Your task to perform on an android device: Go to accessibility settings Image 0: 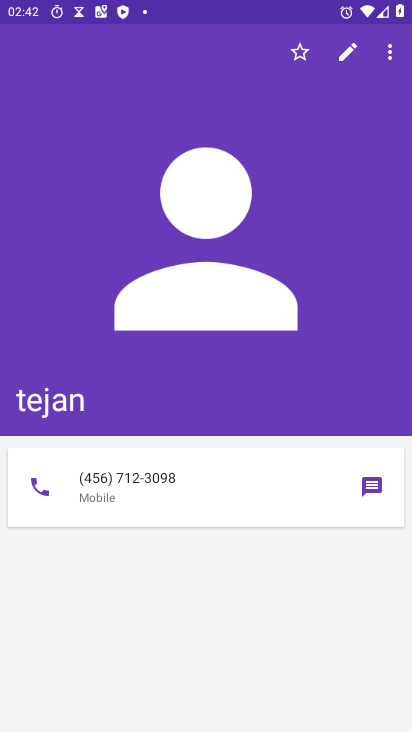
Step 0: press home button
Your task to perform on an android device: Go to accessibility settings Image 1: 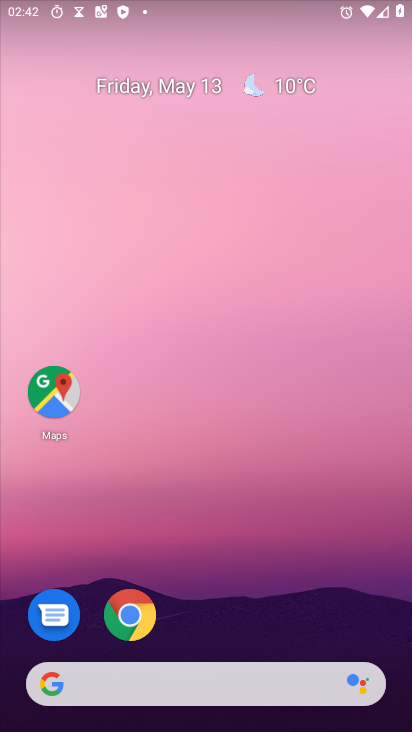
Step 1: drag from (153, 378) to (83, 139)
Your task to perform on an android device: Go to accessibility settings Image 2: 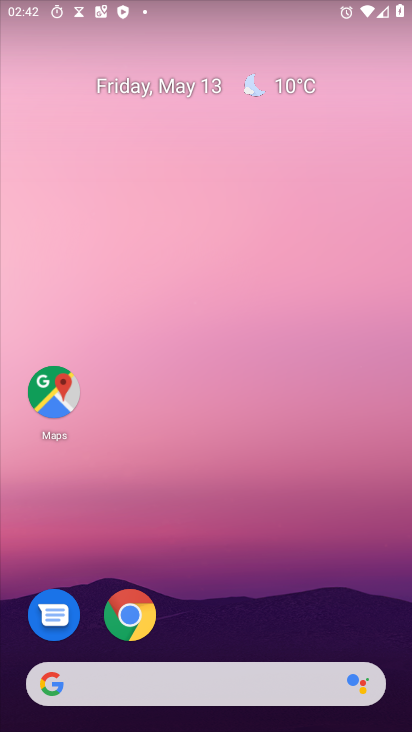
Step 2: drag from (188, 636) to (24, 73)
Your task to perform on an android device: Go to accessibility settings Image 3: 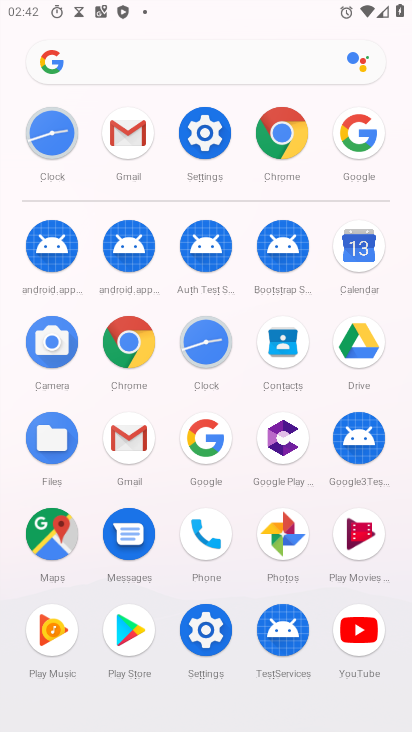
Step 3: click (209, 133)
Your task to perform on an android device: Go to accessibility settings Image 4: 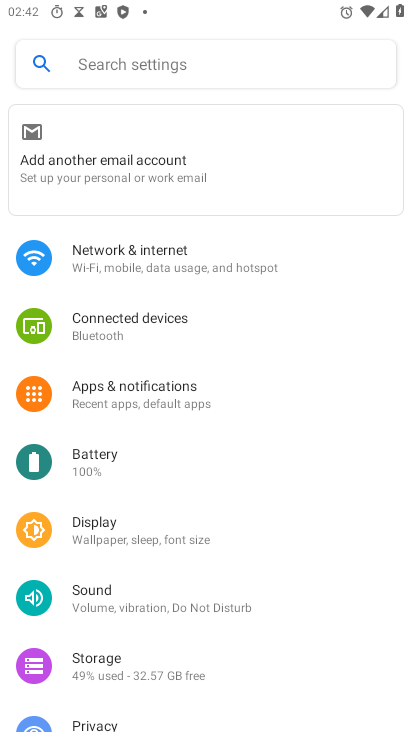
Step 4: drag from (250, 691) to (249, 174)
Your task to perform on an android device: Go to accessibility settings Image 5: 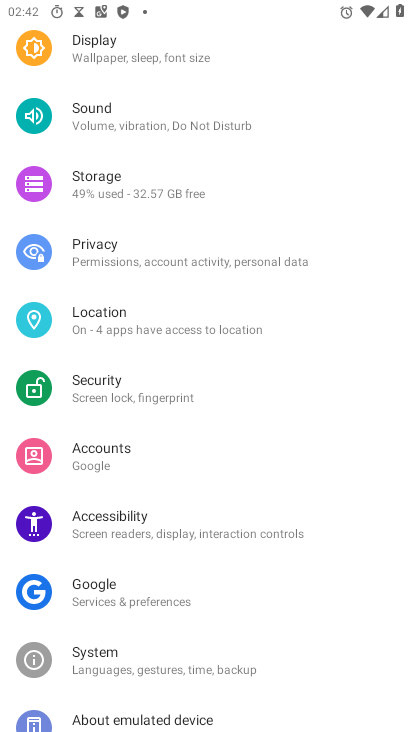
Step 5: click (141, 521)
Your task to perform on an android device: Go to accessibility settings Image 6: 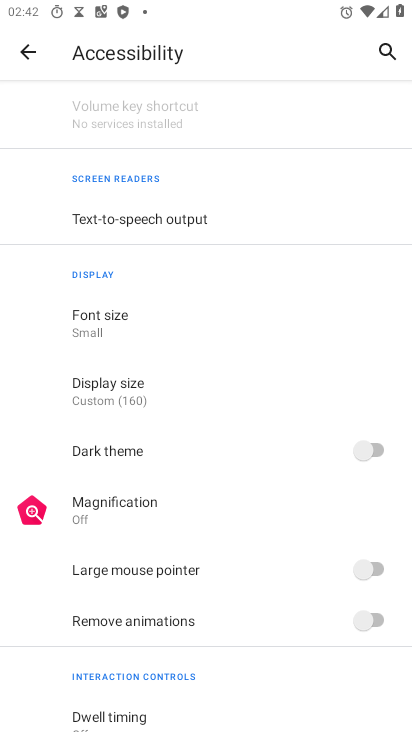
Step 6: task complete